Your task to perform on an android device: refresh tabs in the chrome app Image 0: 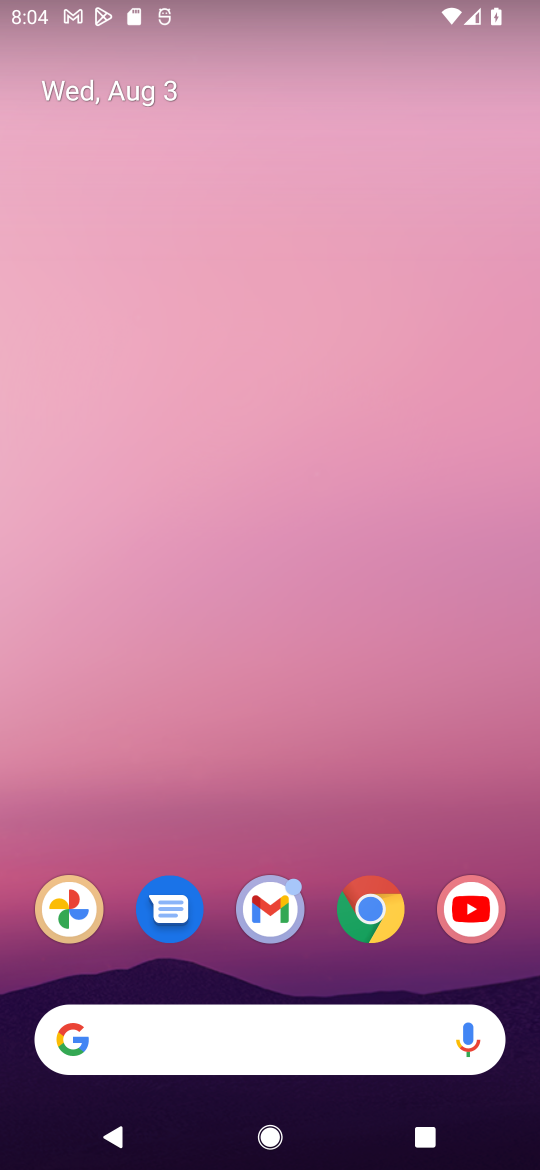
Step 0: press home button
Your task to perform on an android device: refresh tabs in the chrome app Image 1: 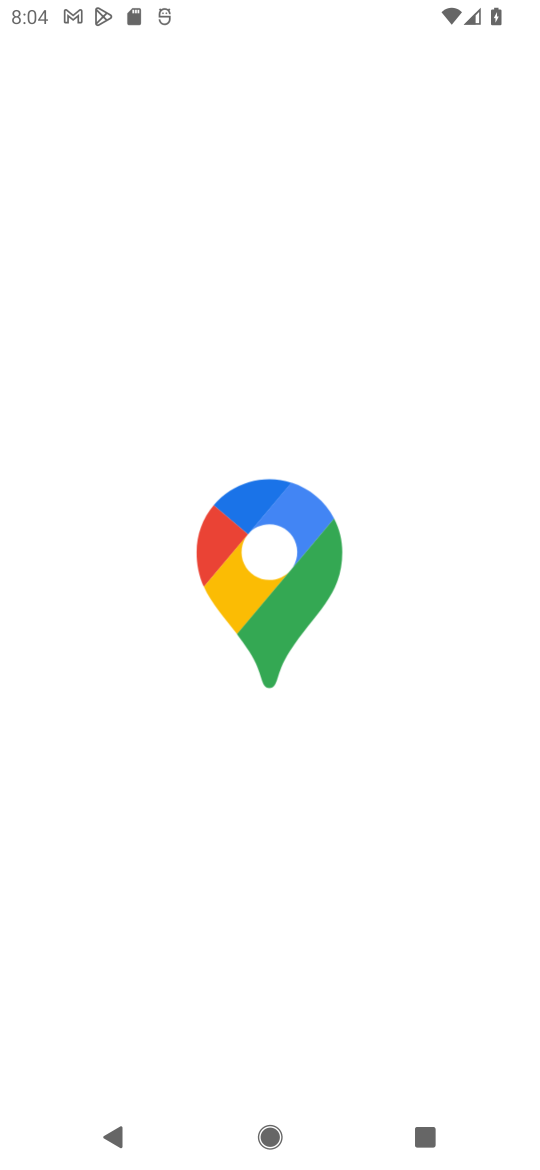
Step 1: press home button
Your task to perform on an android device: refresh tabs in the chrome app Image 2: 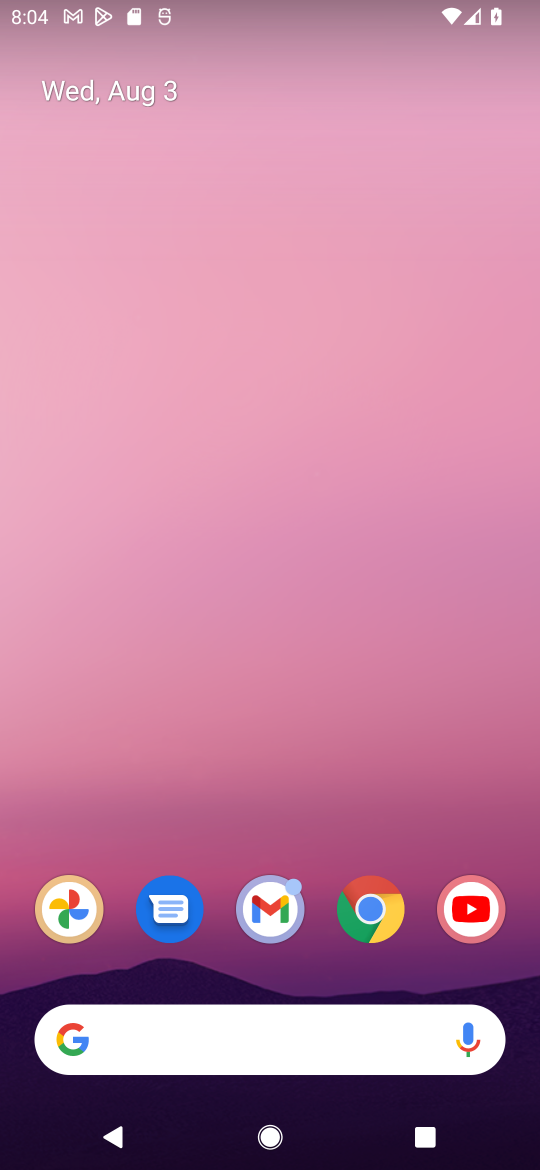
Step 2: drag from (308, 832) to (344, 230)
Your task to perform on an android device: refresh tabs in the chrome app Image 3: 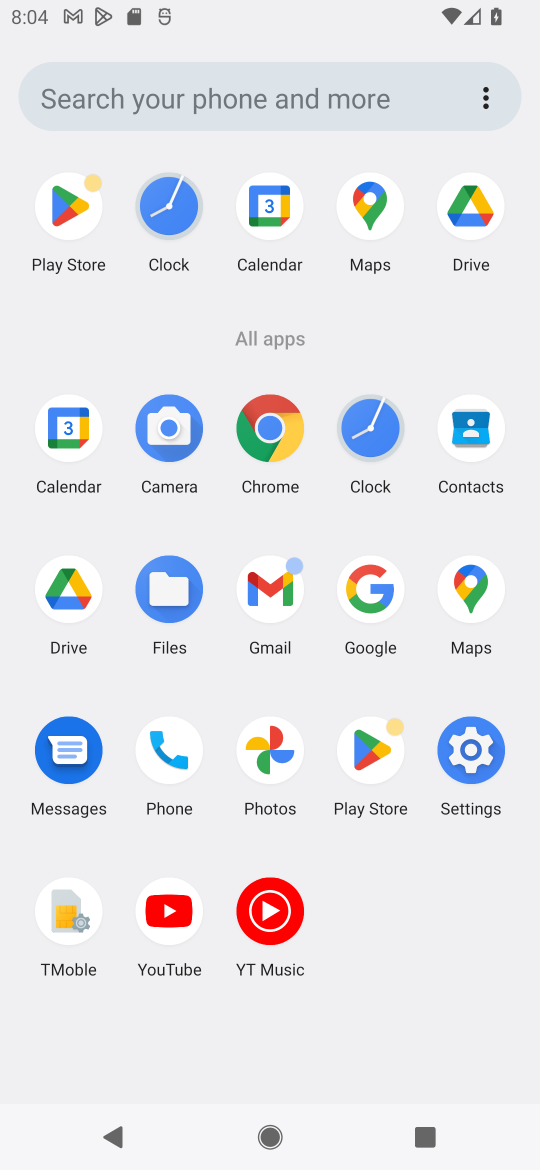
Step 3: click (270, 434)
Your task to perform on an android device: refresh tabs in the chrome app Image 4: 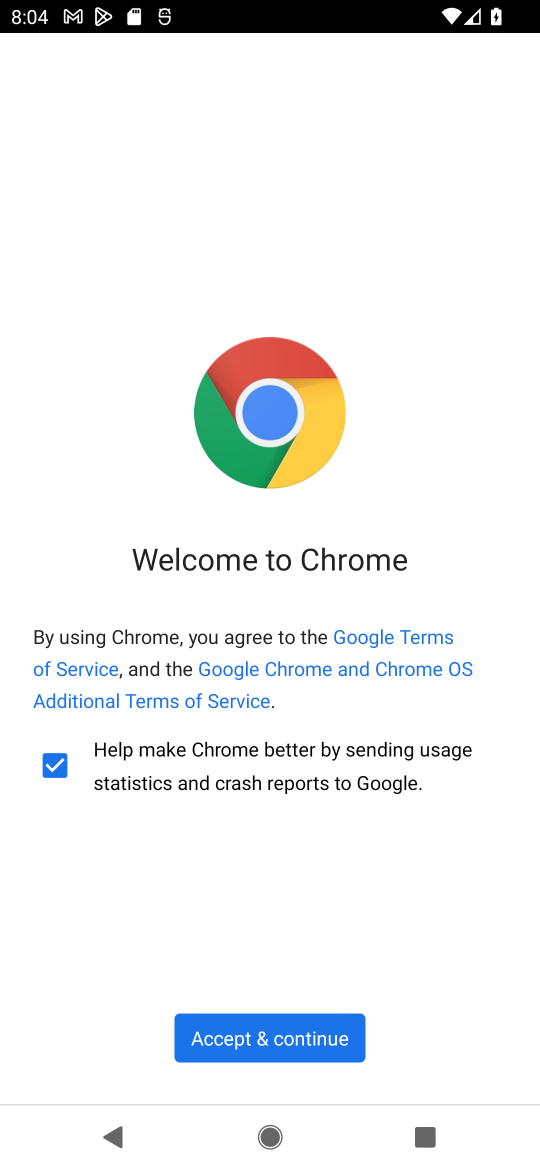
Step 4: click (260, 1046)
Your task to perform on an android device: refresh tabs in the chrome app Image 5: 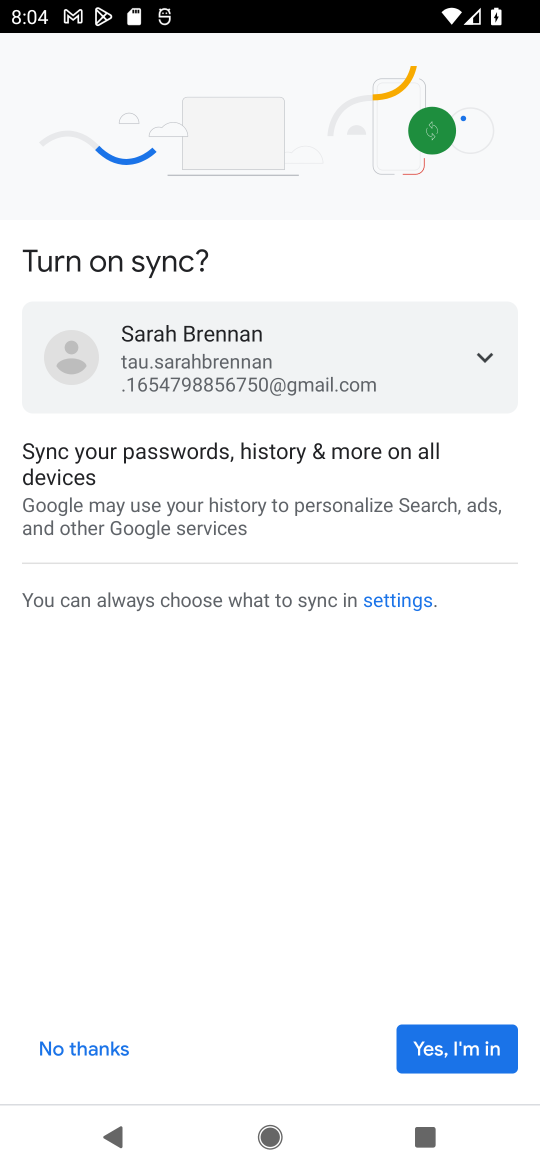
Step 5: click (448, 1040)
Your task to perform on an android device: refresh tabs in the chrome app Image 6: 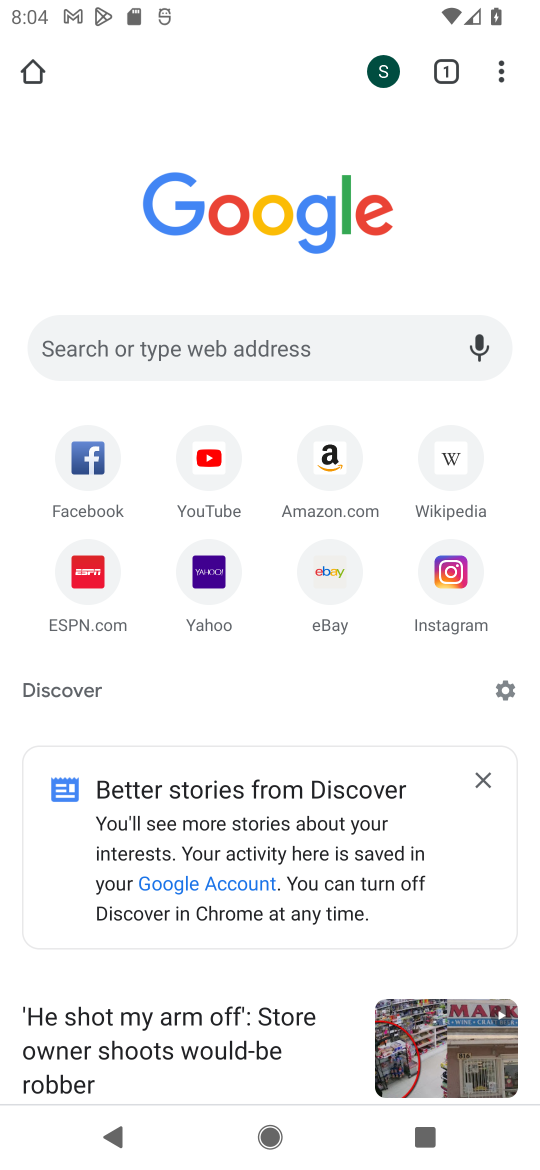
Step 6: click (501, 76)
Your task to perform on an android device: refresh tabs in the chrome app Image 7: 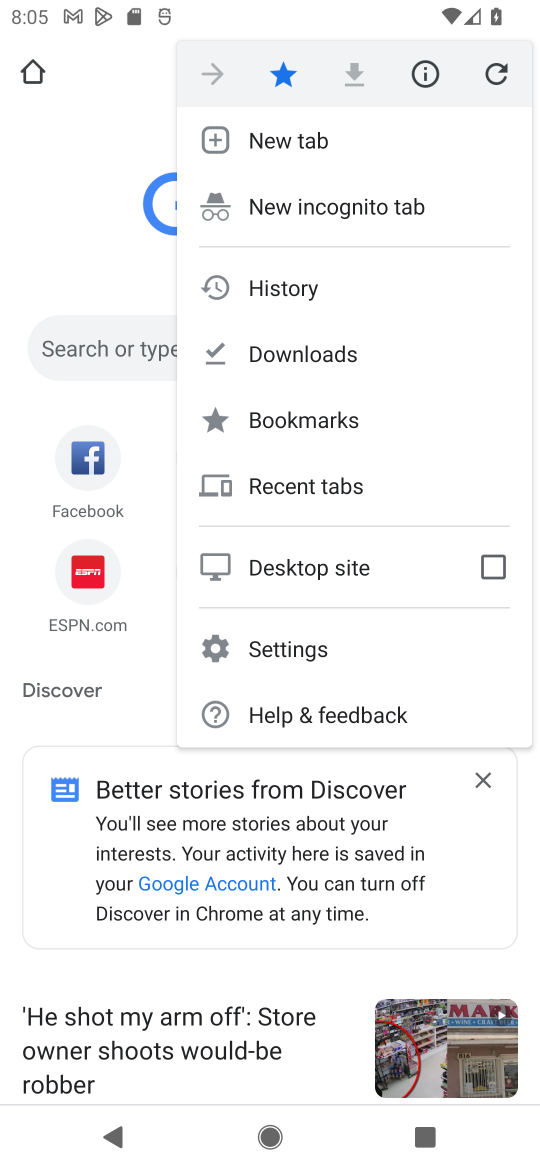
Step 7: click (504, 57)
Your task to perform on an android device: refresh tabs in the chrome app Image 8: 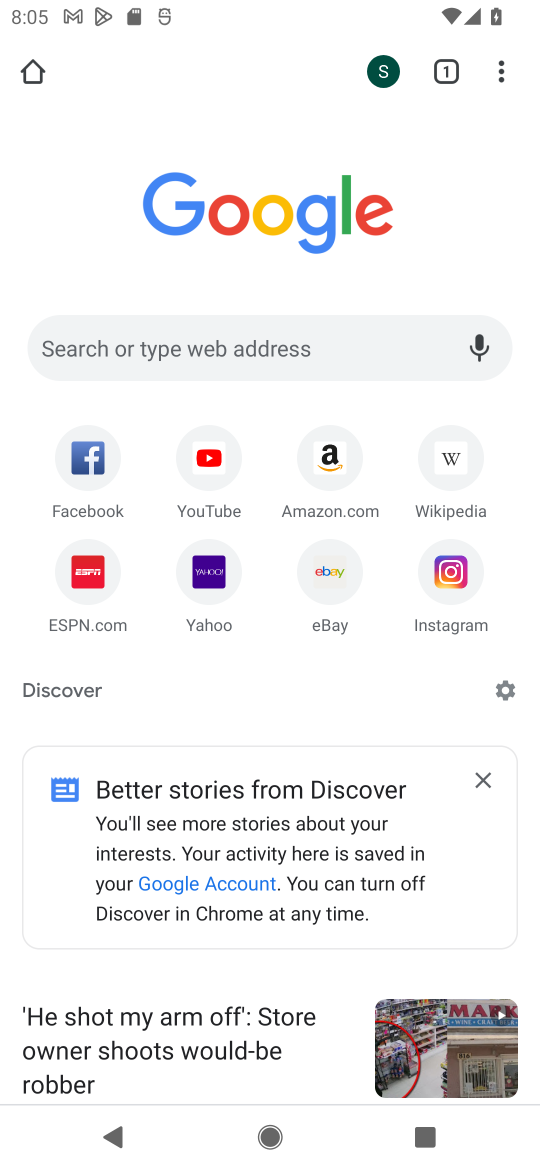
Step 8: task complete